Your task to perform on an android device: turn off picture-in-picture Image 0: 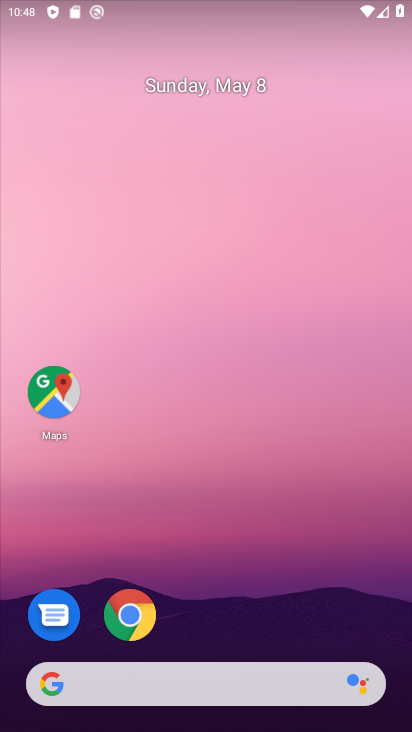
Step 0: drag from (271, 636) to (350, 70)
Your task to perform on an android device: turn off picture-in-picture Image 1: 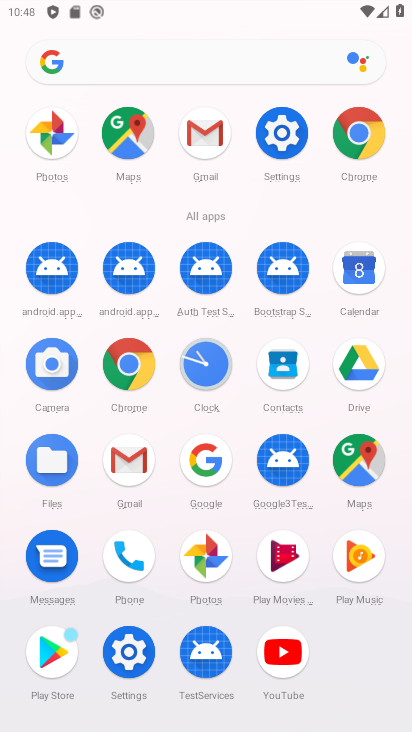
Step 1: click (279, 130)
Your task to perform on an android device: turn off picture-in-picture Image 2: 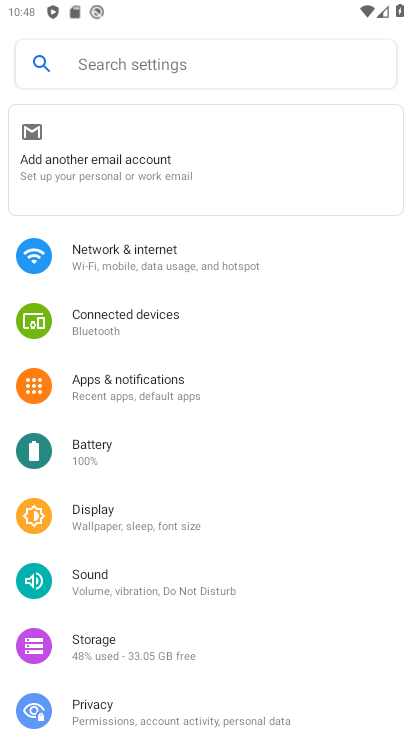
Step 2: click (161, 390)
Your task to perform on an android device: turn off picture-in-picture Image 3: 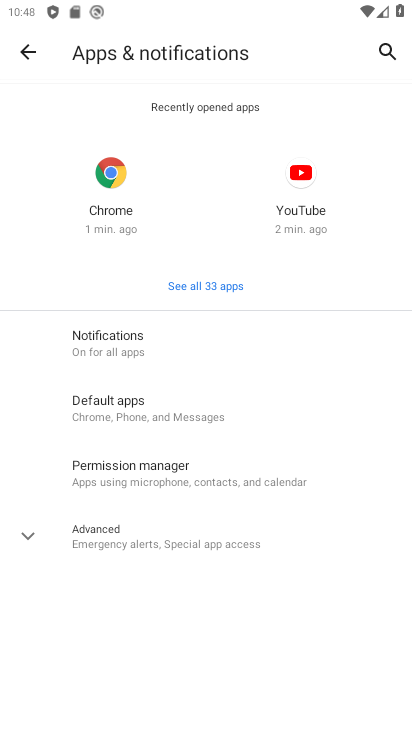
Step 3: click (153, 534)
Your task to perform on an android device: turn off picture-in-picture Image 4: 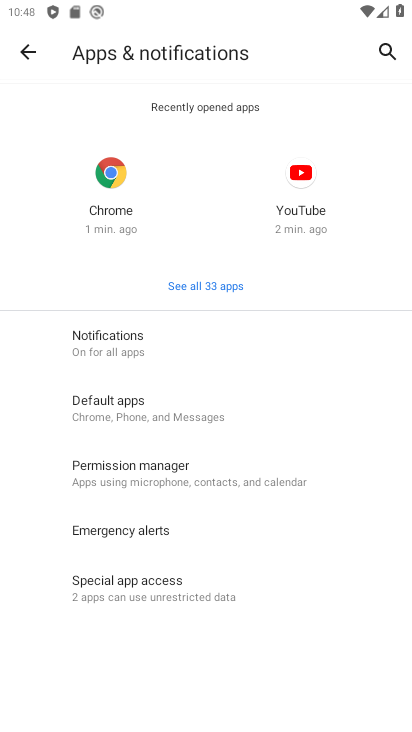
Step 4: drag from (159, 539) to (235, 188)
Your task to perform on an android device: turn off picture-in-picture Image 5: 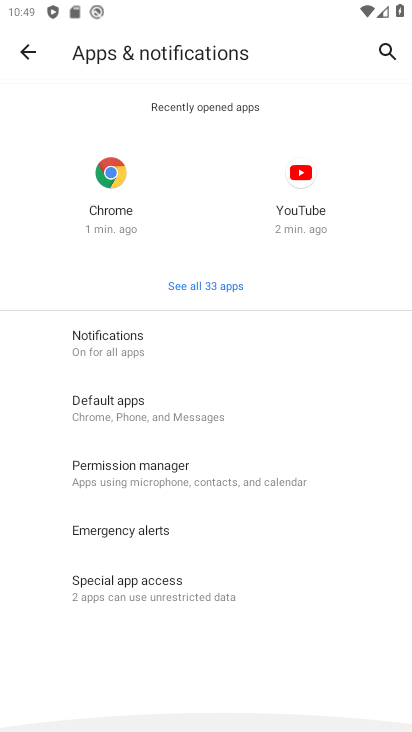
Step 5: click (182, 591)
Your task to perform on an android device: turn off picture-in-picture Image 6: 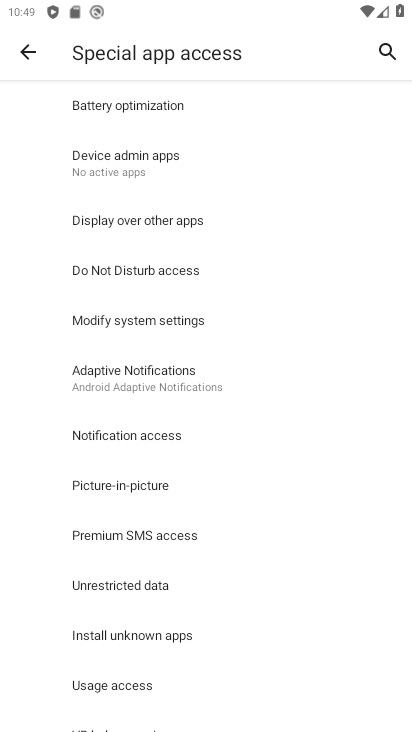
Step 6: click (138, 484)
Your task to perform on an android device: turn off picture-in-picture Image 7: 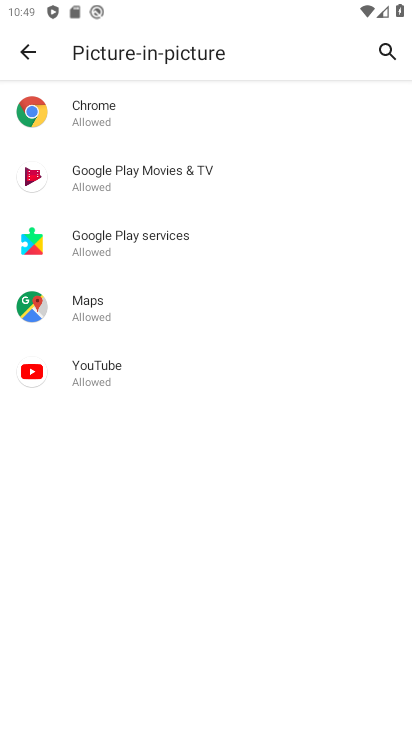
Step 7: click (123, 107)
Your task to perform on an android device: turn off picture-in-picture Image 8: 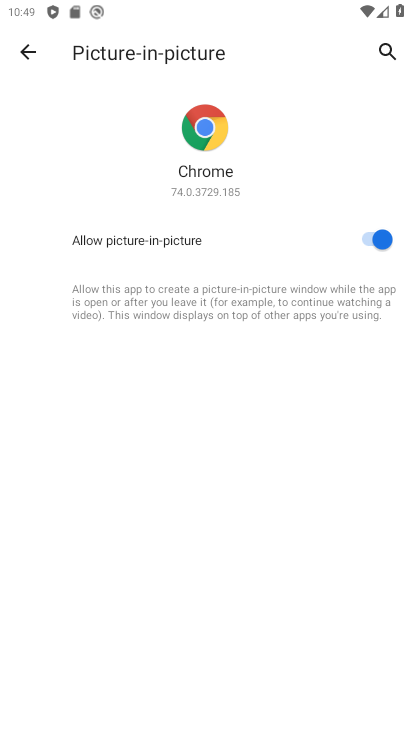
Step 8: click (371, 237)
Your task to perform on an android device: turn off picture-in-picture Image 9: 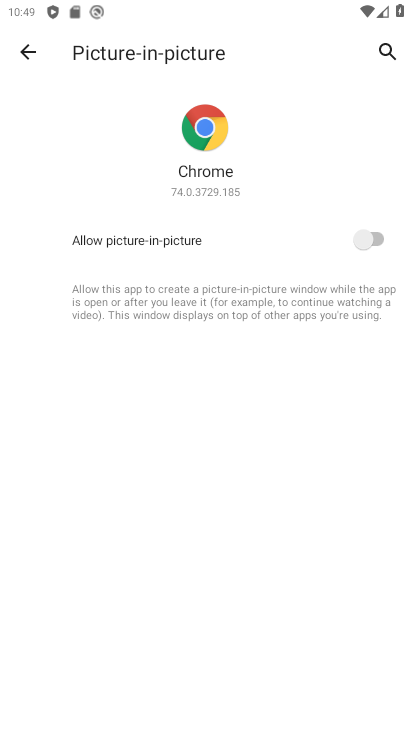
Step 9: task complete